Your task to perform on an android device: Open calendar and show me the first week of next month Image 0: 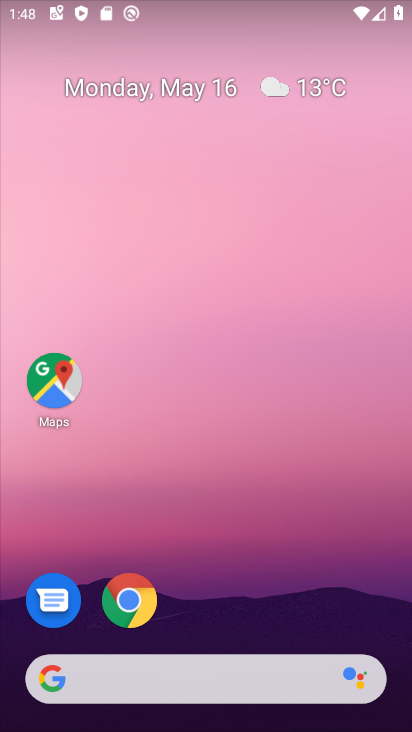
Step 0: drag from (282, 556) to (262, 77)
Your task to perform on an android device: Open calendar and show me the first week of next month Image 1: 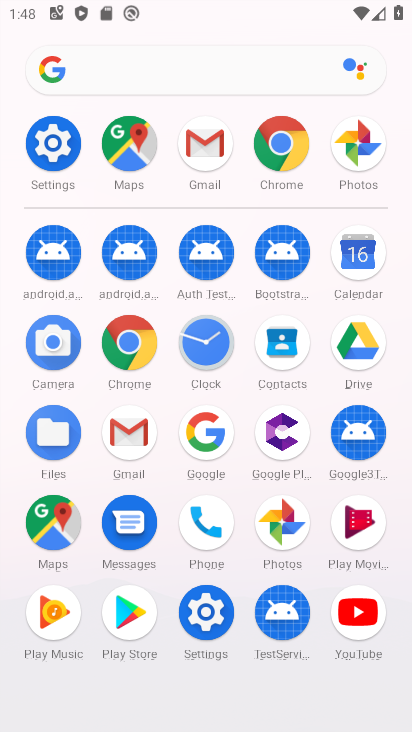
Step 1: click (378, 249)
Your task to perform on an android device: Open calendar and show me the first week of next month Image 2: 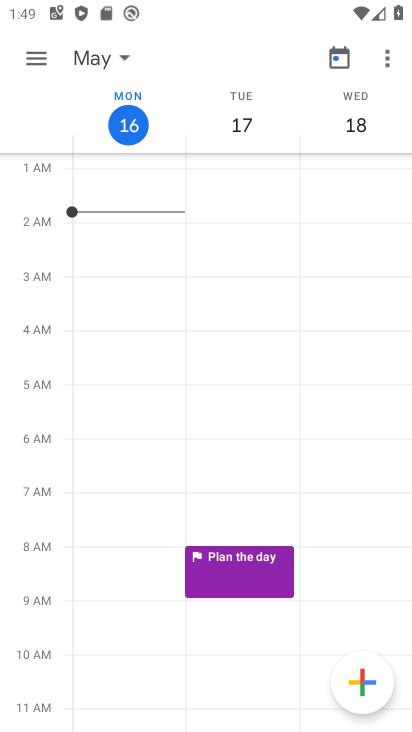
Step 2: click (43, 65)
Your task to perform on an android device: Open calendar and show me the first week of next month Image 3: 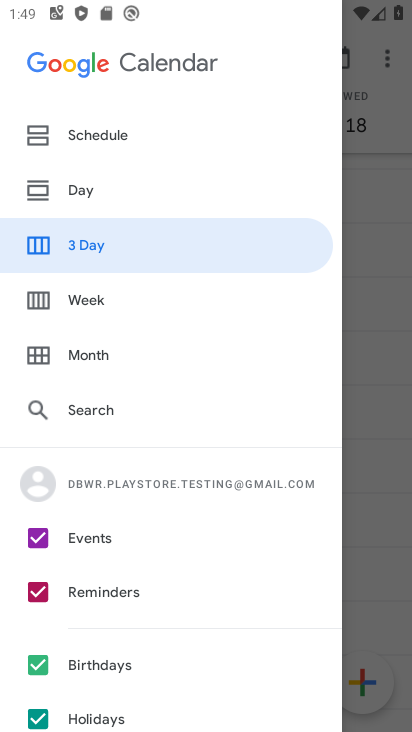
Step 3: click (102, 294)
Your task to perform on an android device: Open calendar and show me the first week of next month Image 4: 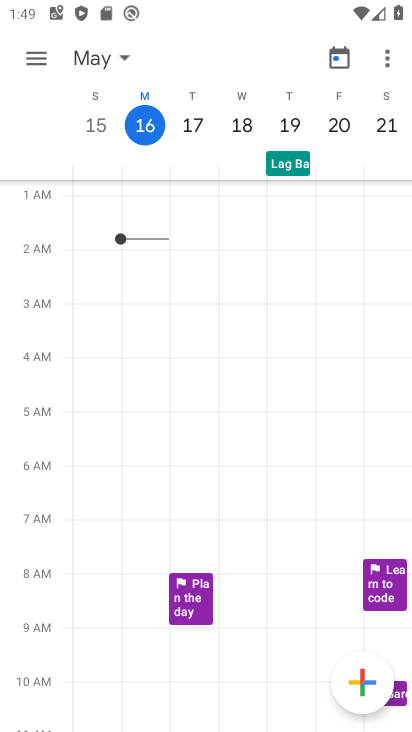
Step 4: click (116, 52)
Your task to perform on an android device: Open calendar and show me the first week of next month Image 5: 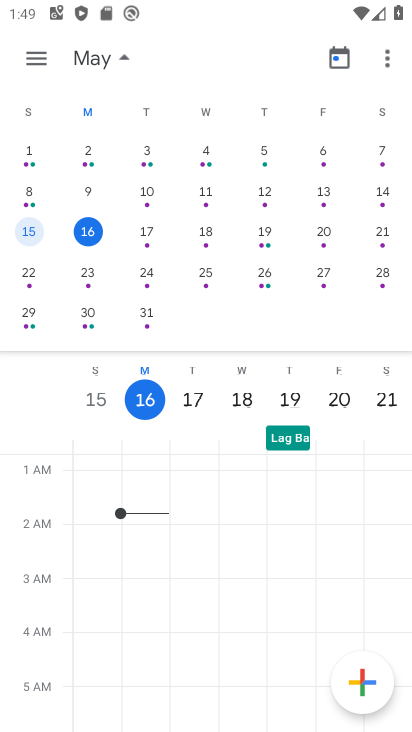
Step 5: drag from (397, 186) to (26, 163)
Your task to perform on an android device: Open calendar and show me the first week of next month Image 6: 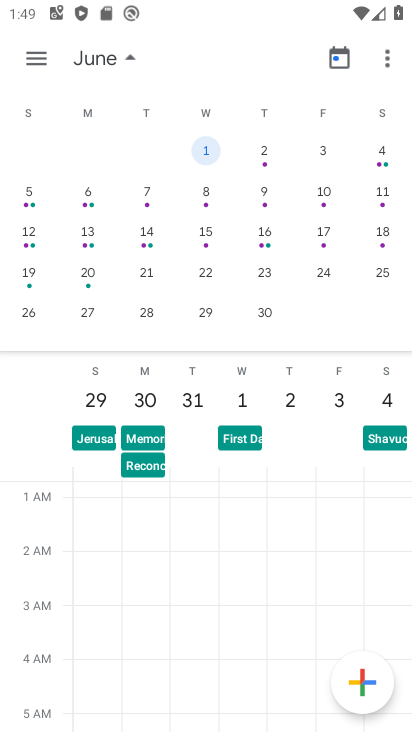
Step 6: click (90, 188)
Your task to perform on an android device: Open calendar and show me the first week of next month Image 7: 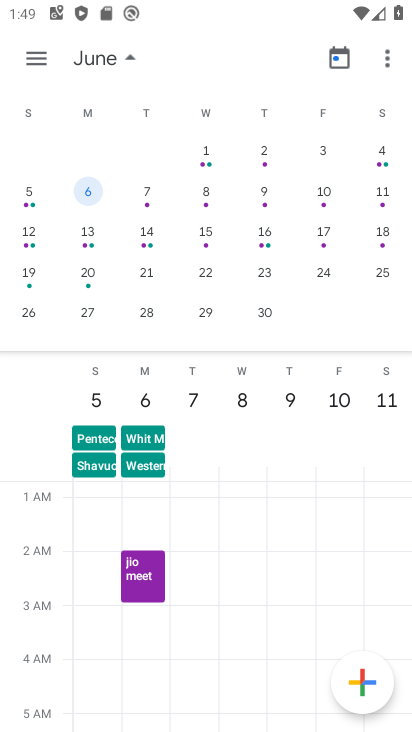
Step 7: task complete